Your task to perform on an android device: What is the news today? Image 0: 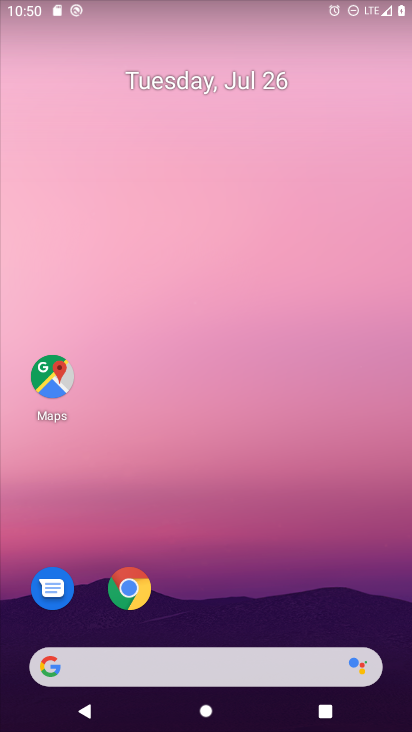
Step 0: drag from (179, 456) to (189, 139)
Your task to perform on an android device: What is the news today? Image 1: 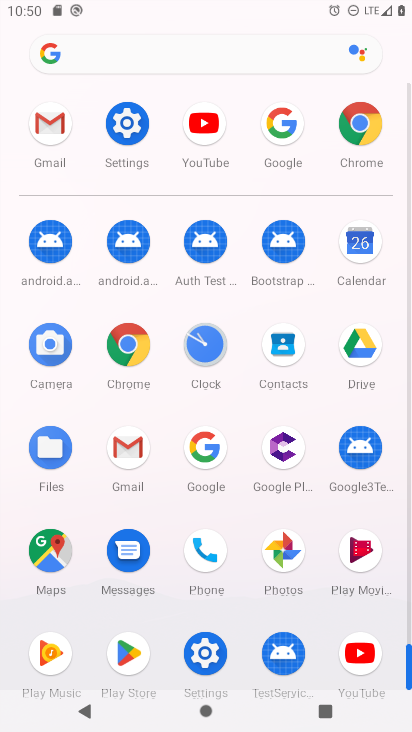
Step 1: click (204, 465)
Your task to perform on an android device: What is the news today? Image 2: 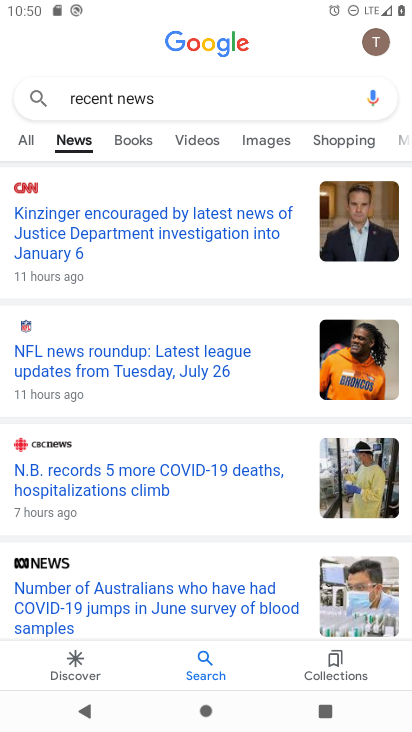
Step 2: task complete